Your task to perform on an android device: check the backup settings in the google photos Image 0: 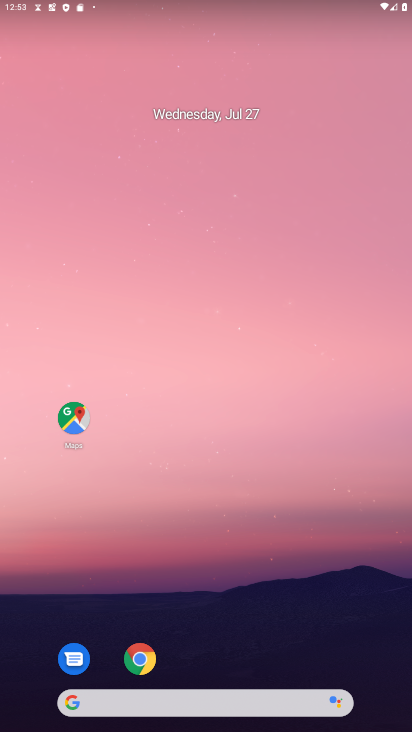
Step 0: drag from (188, 666) to (216, 106)
Your task to perform on an android device: check the backup settings in the google photos Image 1: 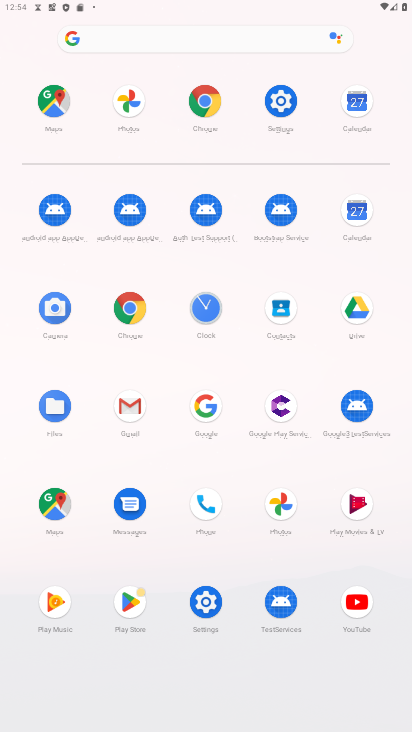
Step 1: click (281, 499)
Your task to perform on an android device: check the backup settings in the google photos Image 2: 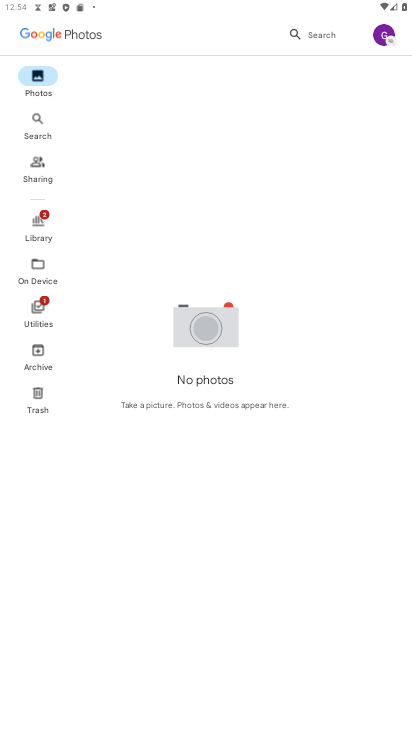
Step 2: click (383, 37)
Your task to perform on an android device: check the backup settings in the google photos Image 3: 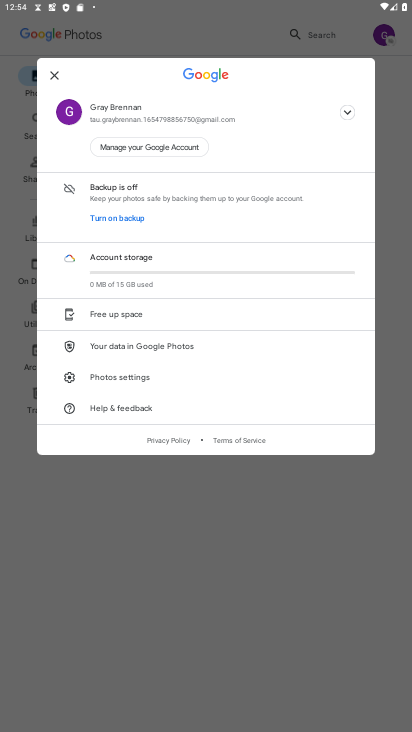
Step 3: click (123, 381)
Your task to perform on an android device: check the backup settings in the google photos Image 4: 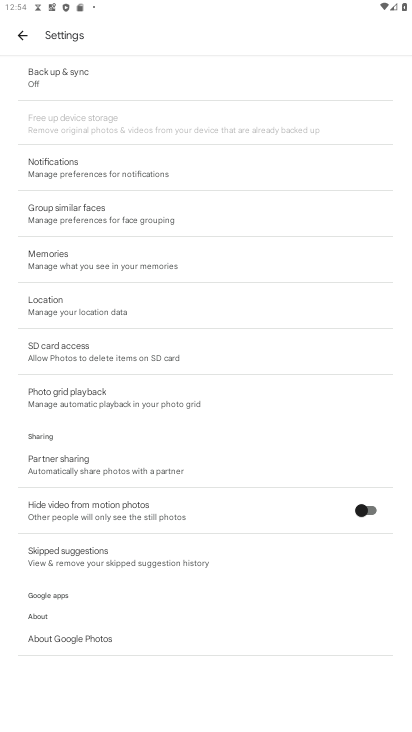
Step 4: click (73, 84)
Your task to perform on an android device: check the backup settings in the google photos Image 5: 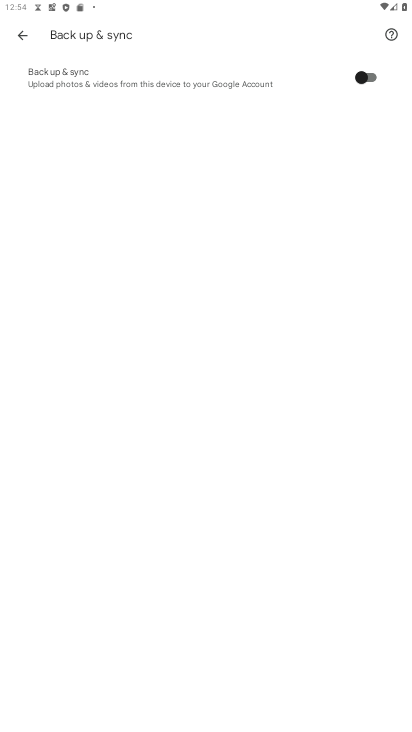
Step 5: click (363, 73)
Your task to perform on an android device: check the backup settings in the google photos Image 6: 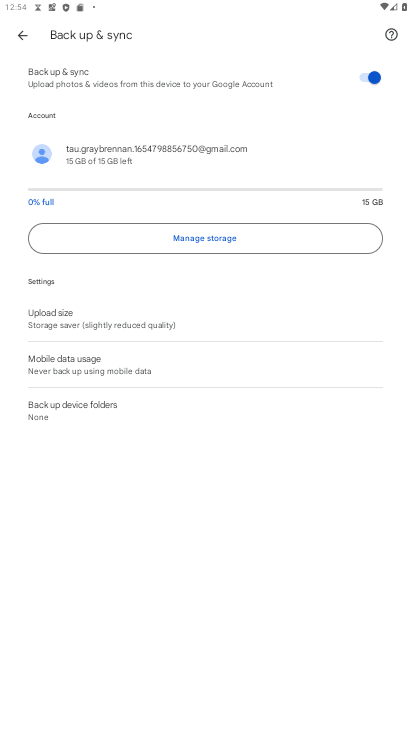
Step 6: task complete